Your task to perform on an android device: uninstall "Instagram" Image 0: 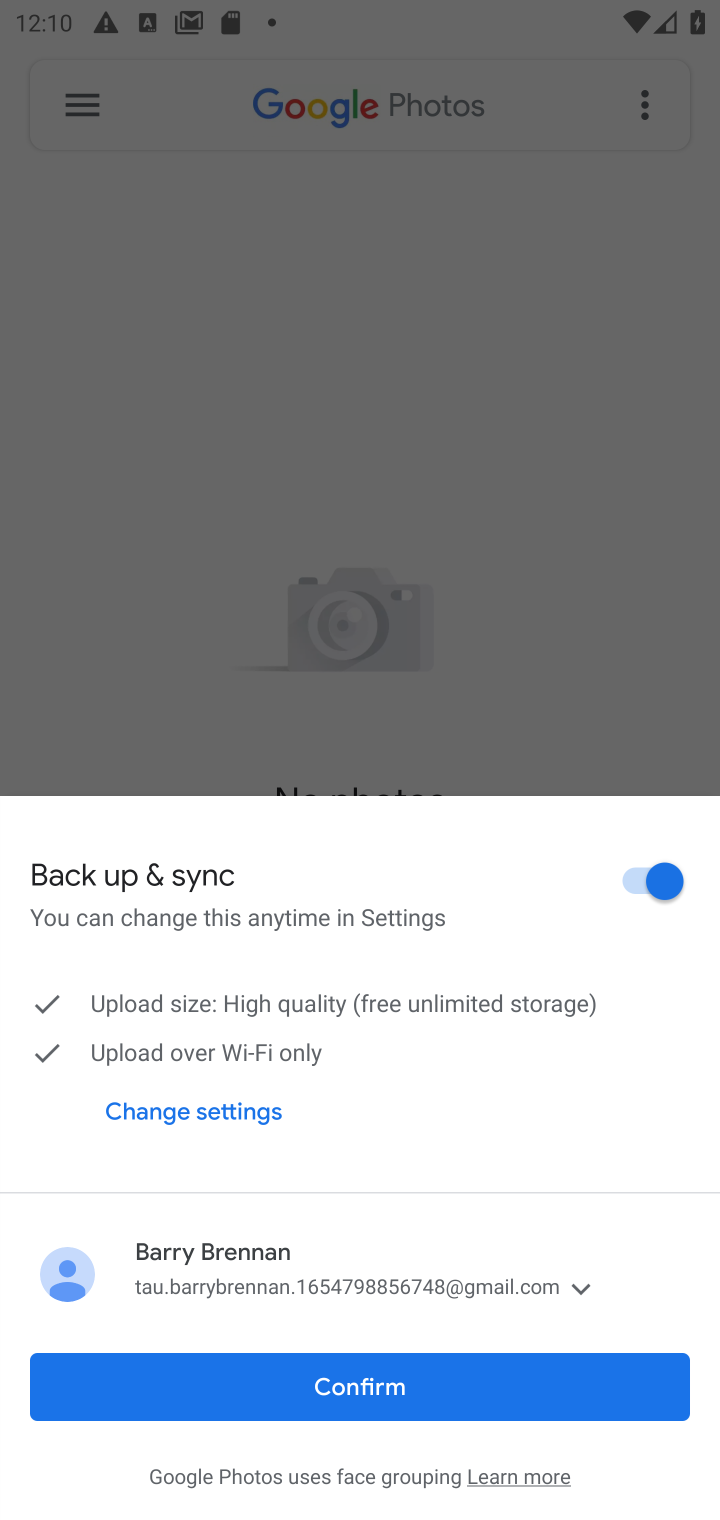
Step 0: press home button
Your task to perform on an android device: uninstall "Instagram" Image 1: 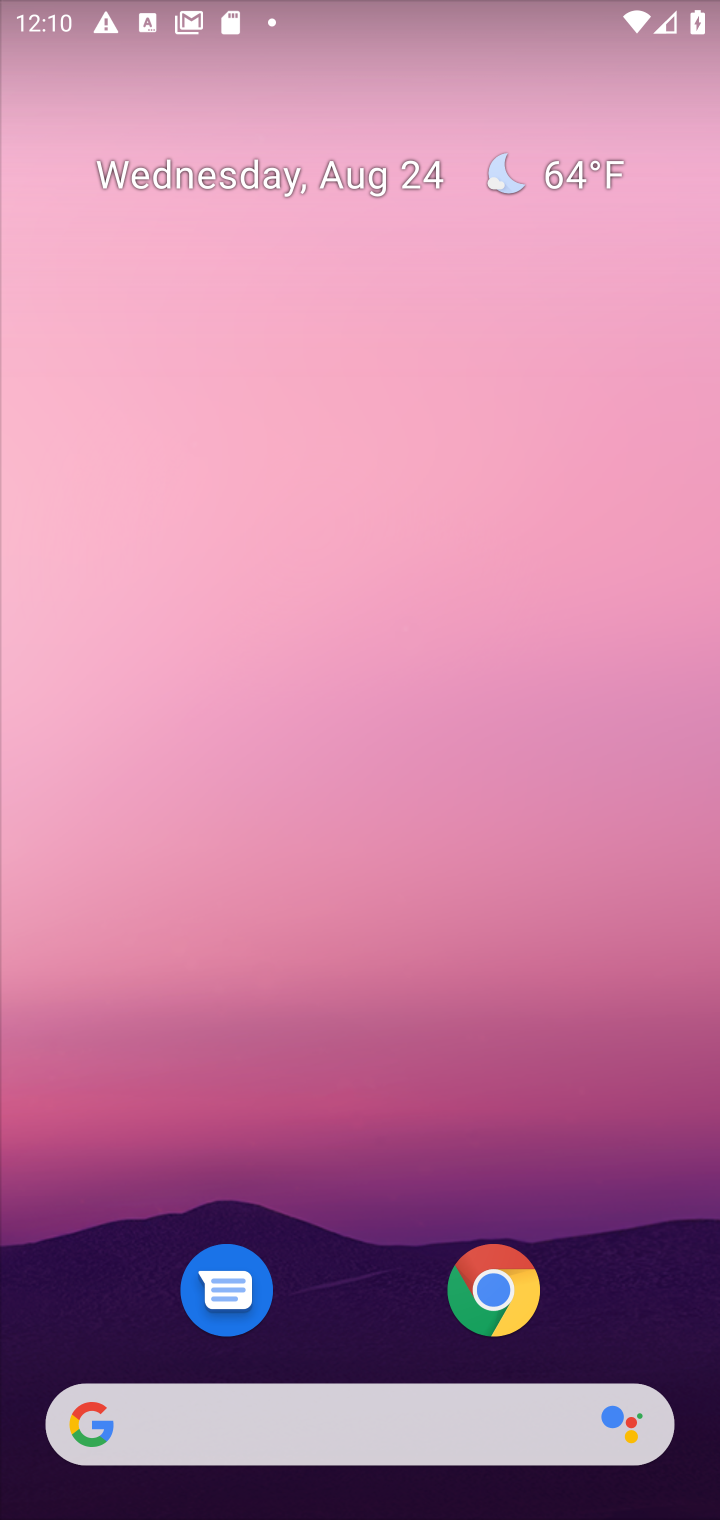
Step 1: drag from (370, 803) to (370, 144)
Your task to perform on an android device: uninstall "Instagram" Image 2: 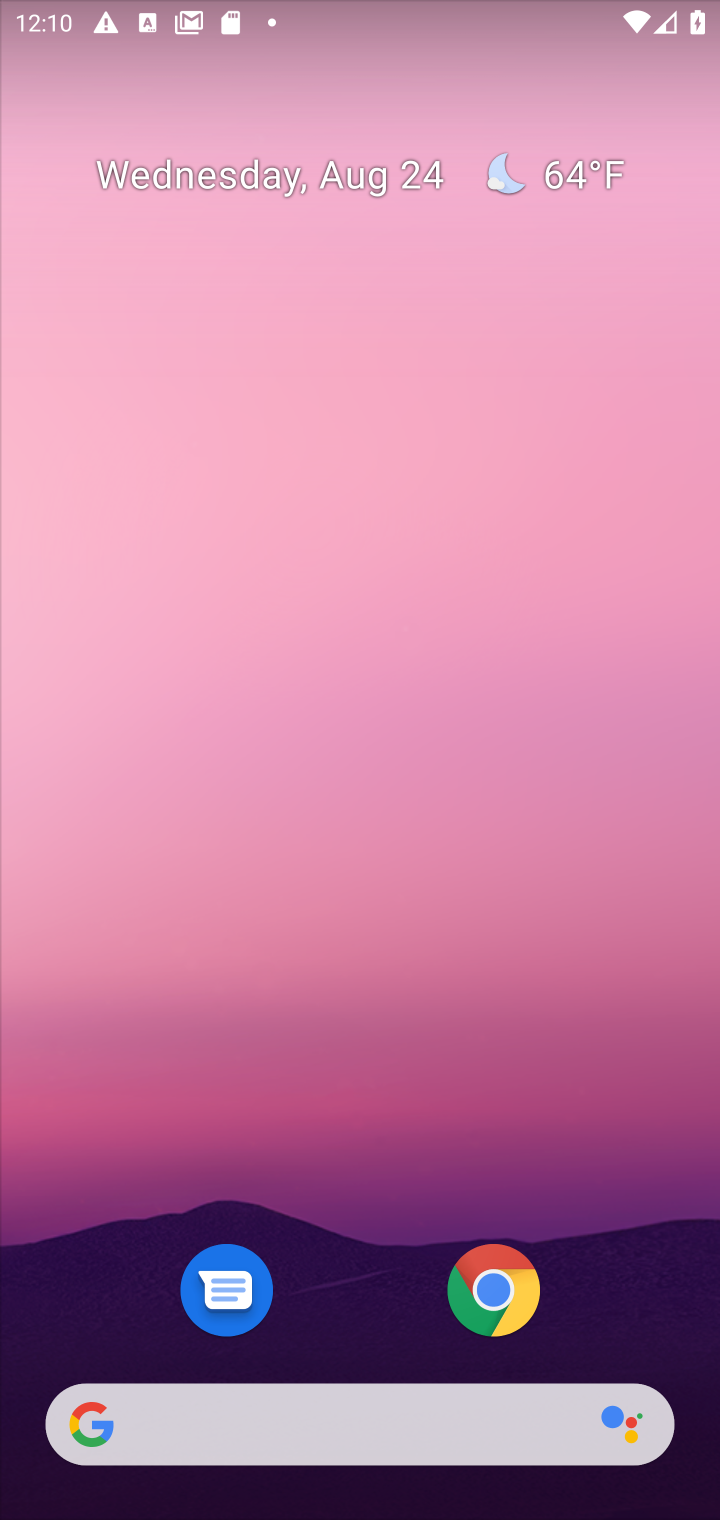
Step 2: drag from (377, 1328) to (360, 156)
Your task to perform on an android device: uninstall "Instagram" Image 3: 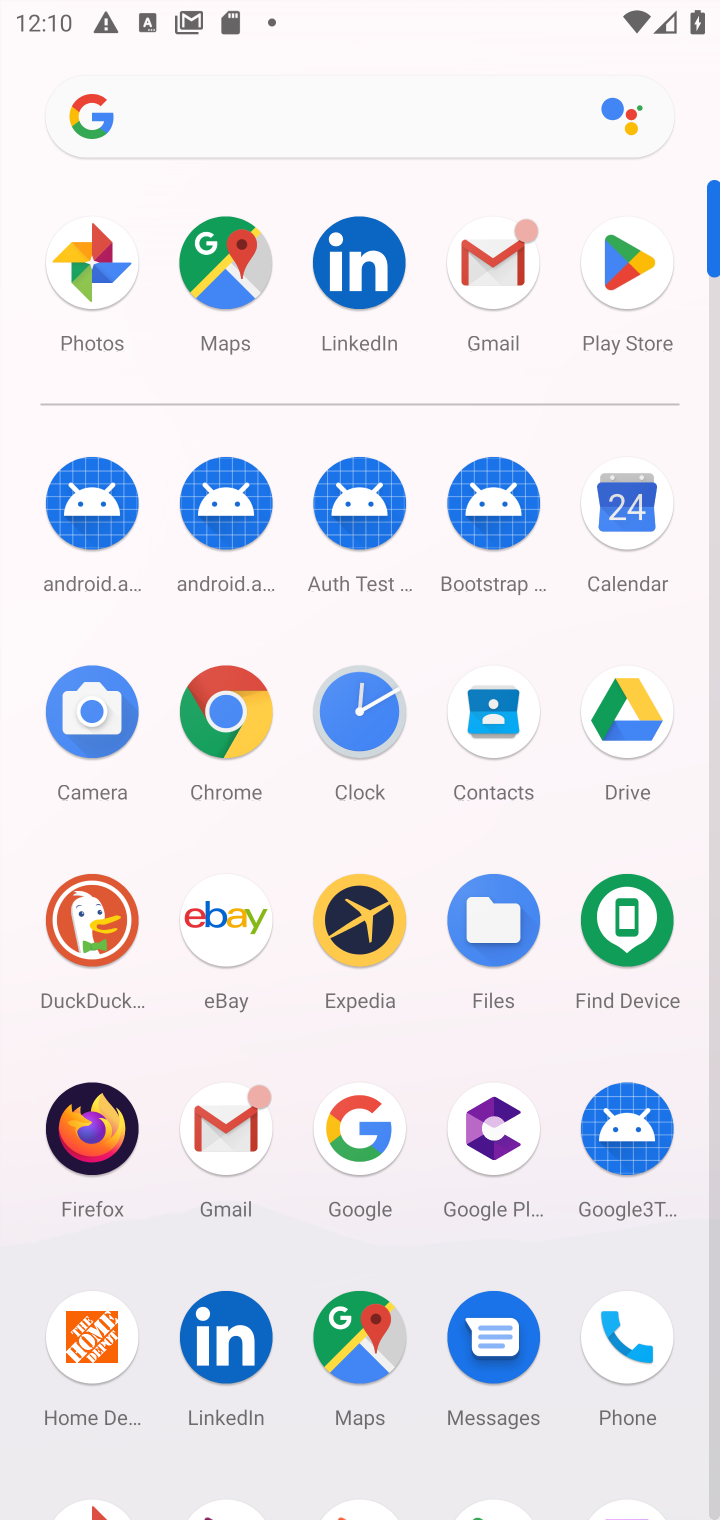
Step 3: click (623, 270)
Your task to perform on an android device: uninstall "Instagram" Image 4: 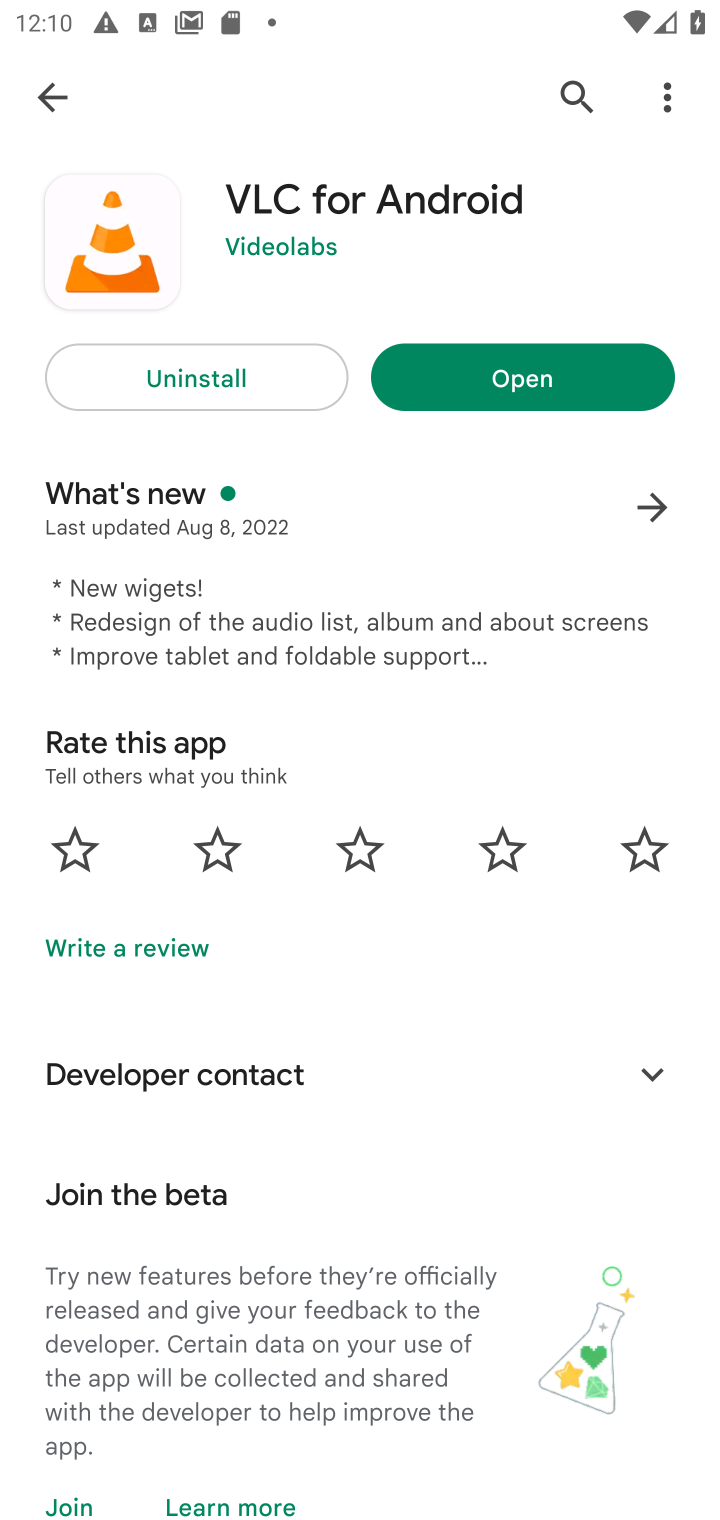
Step 4: click (570, 90)
Your task to perform on an android device: uninstall "Instagram" Image 5: 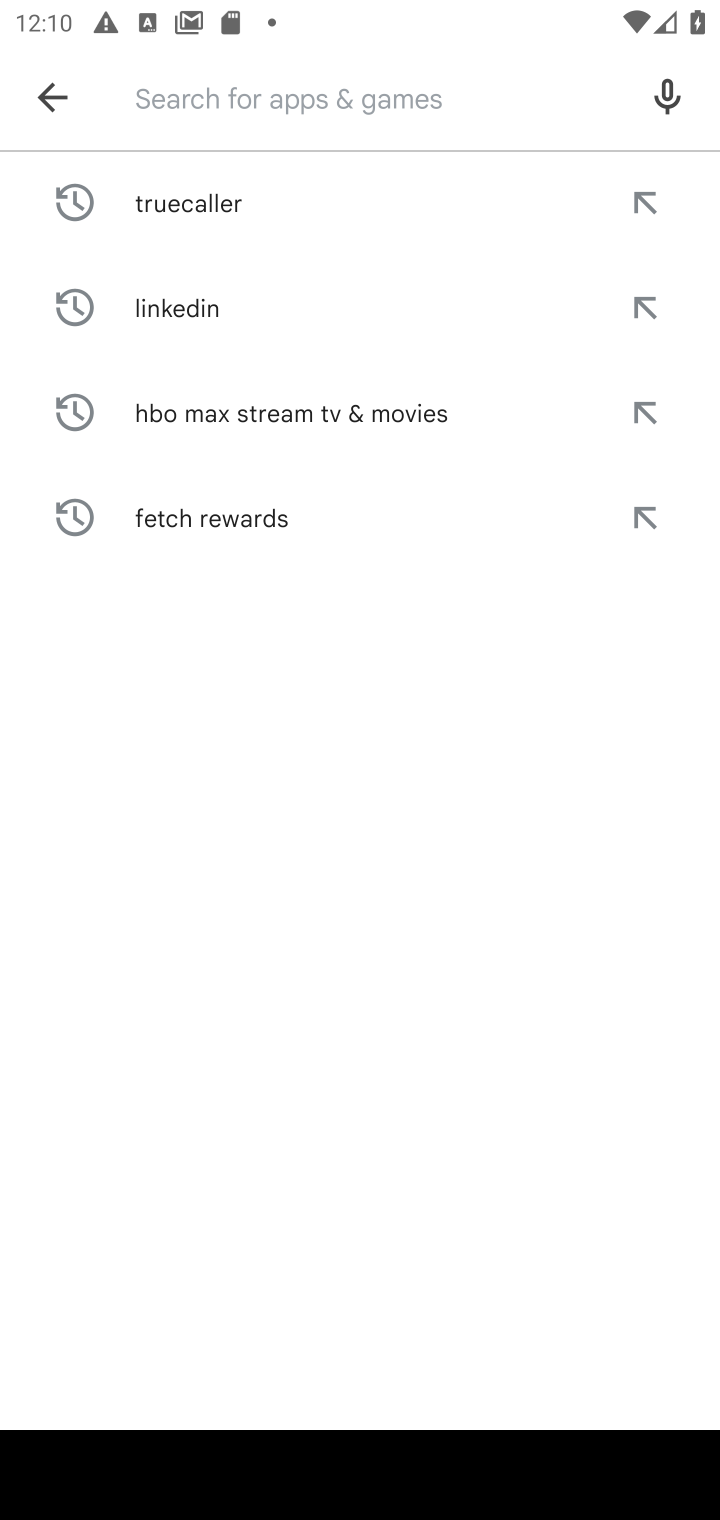
Step 5: type "Instagram"
Your task to perform on an android device: uninstall "Instagram" Image 6: 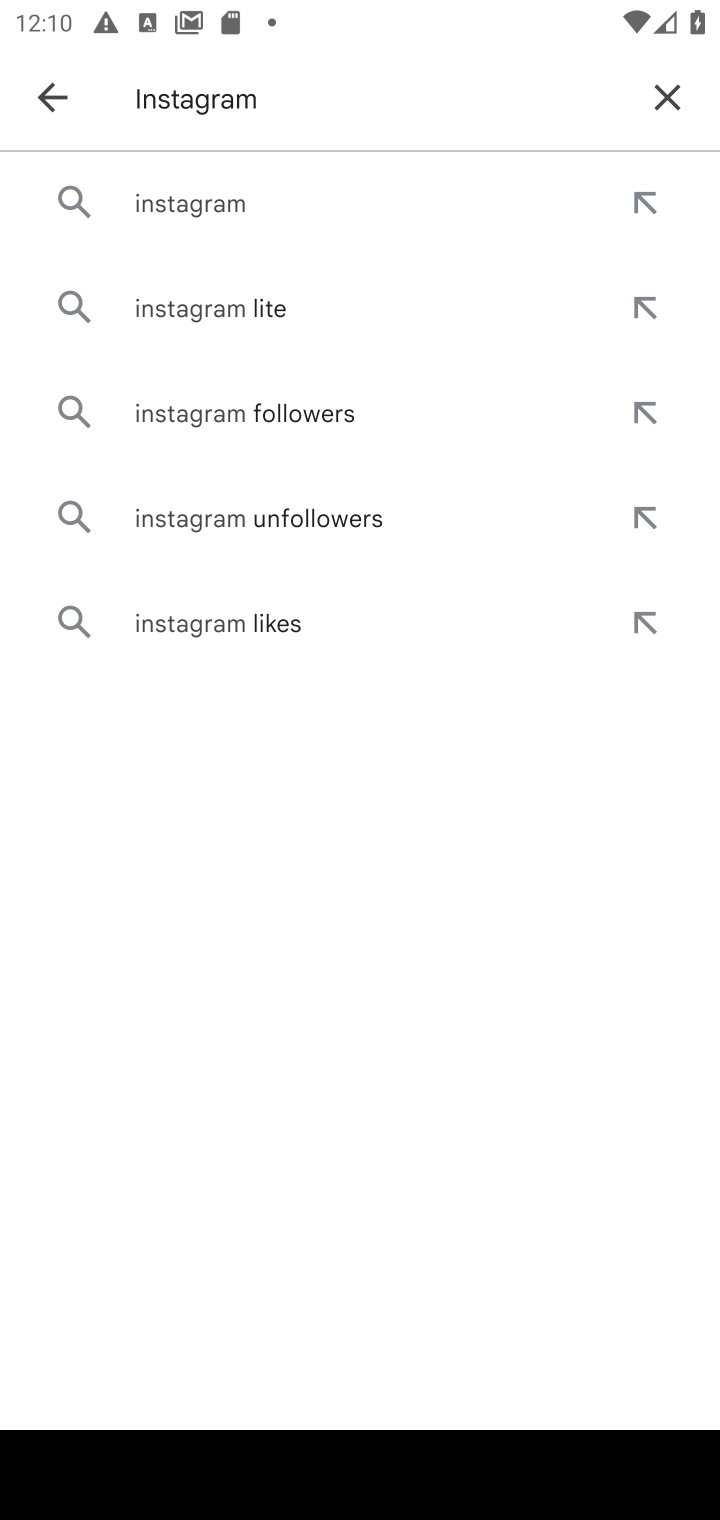
Step 6: click (218, 194)
Your task to perform on an android device: uninstall "Instagram" Image 7: 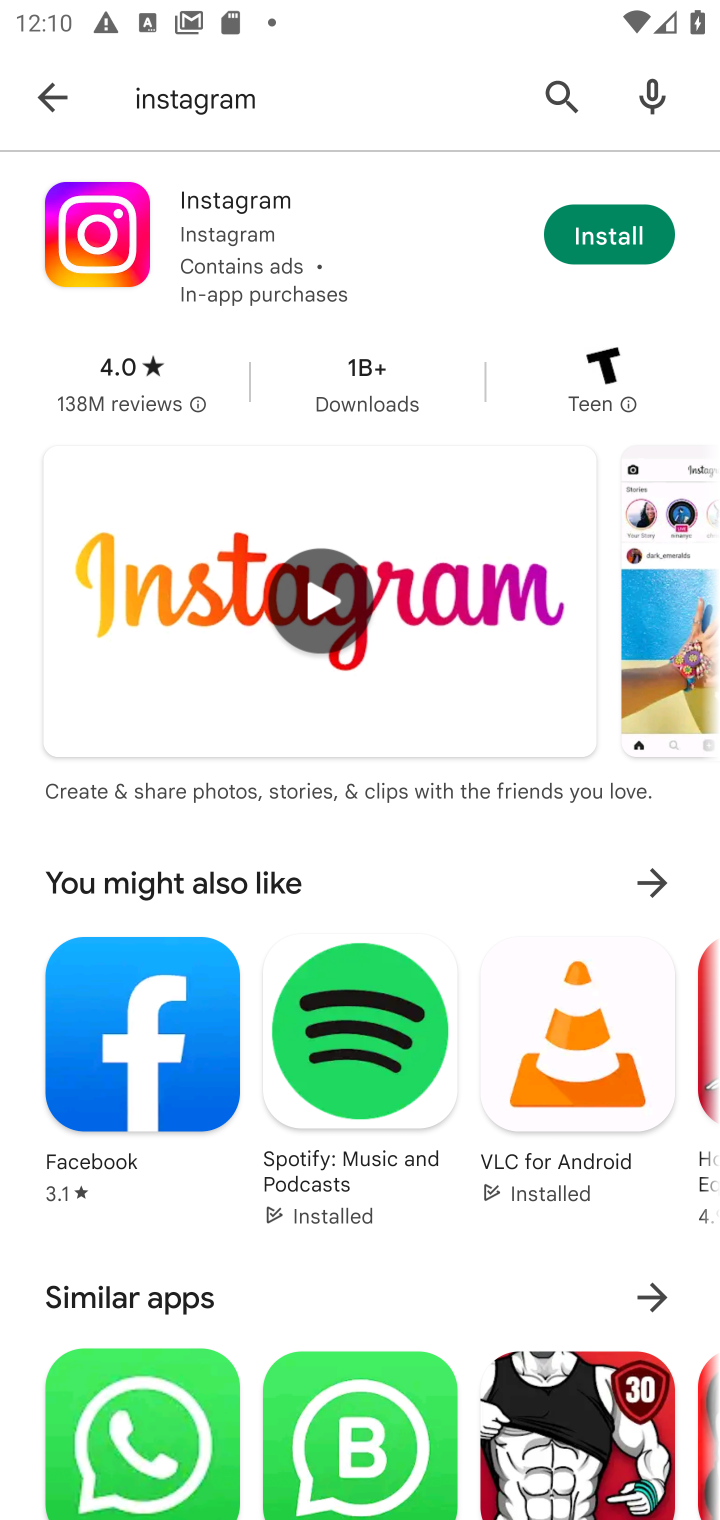
Step 7: click (237, 221)
Your task to perform on an android device: uninstall "Instagram" Image 8: 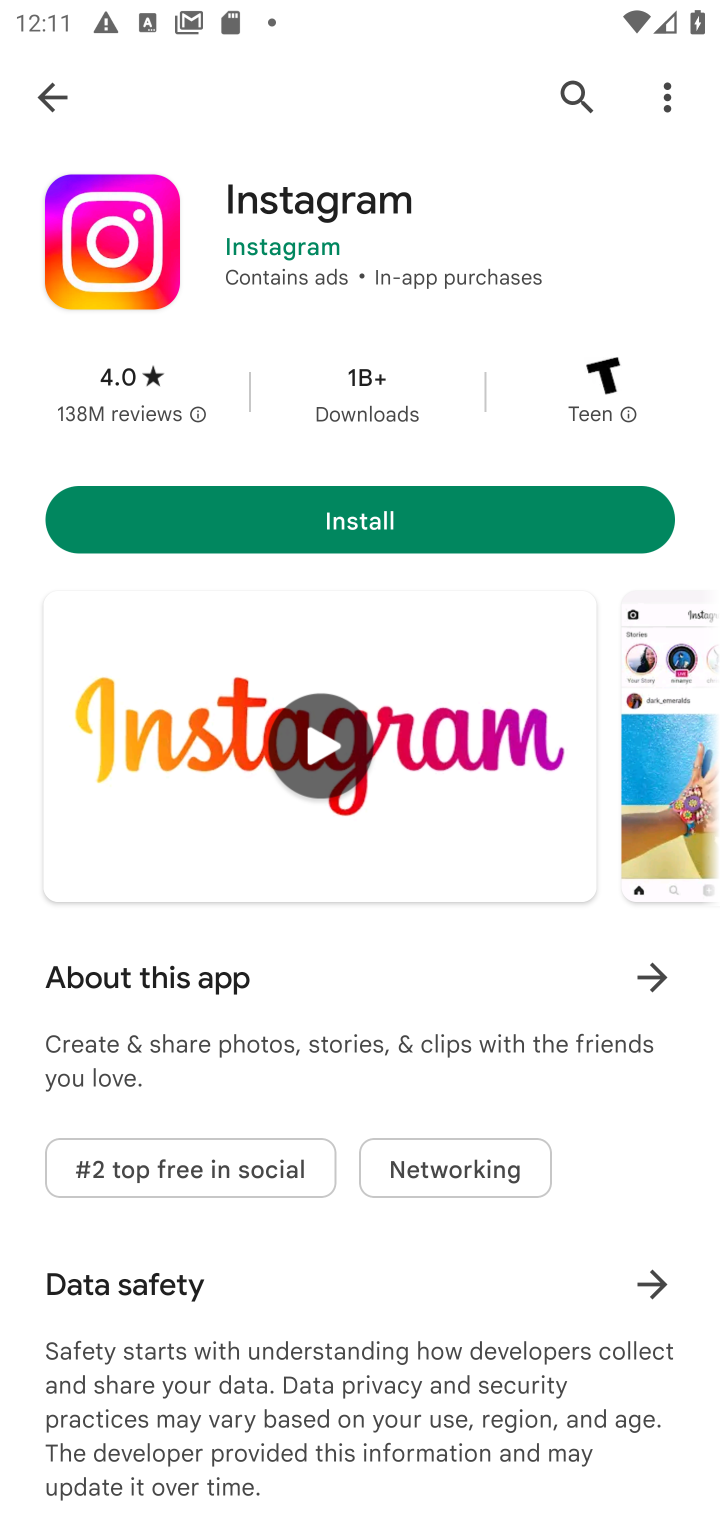
Step 8: task complete